Your task to perform on an android device: Do I have any events this weekend? Image 0: 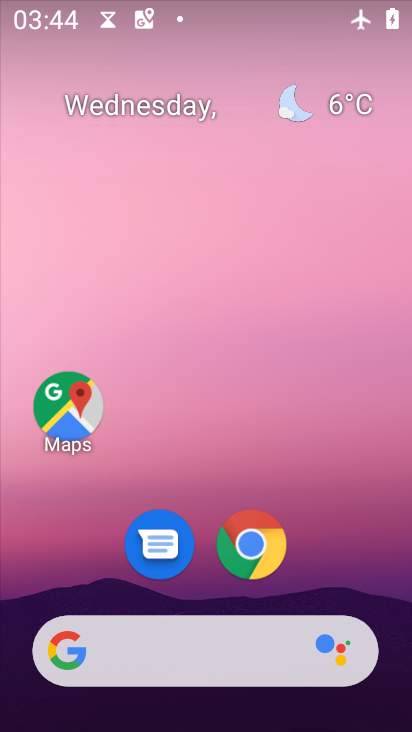
Step 0: drag from (337, 593) to (337, 103)
Your task to perform on an android device: Do I have any events this weekend? Image 1: 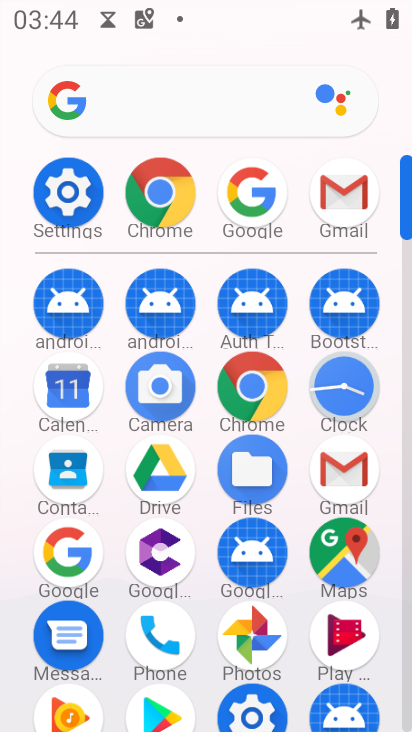
Step 1: click (51, 392)
Your task to perform on an android device: Do I have any events this weekend? Image 2: 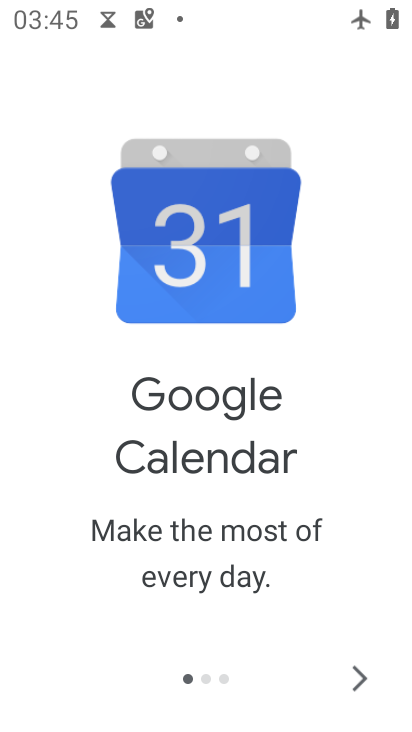
Step 2: click (363, 678)
Your task to perform on an android device: Do I have any events this weekend? Image 3: 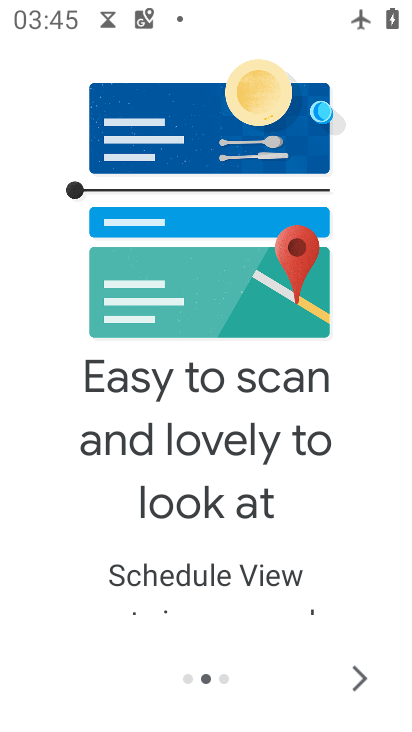
Step 3: click (363, 678)
Your task to perform on an android device: Do I have any events this weekend? Image 4: 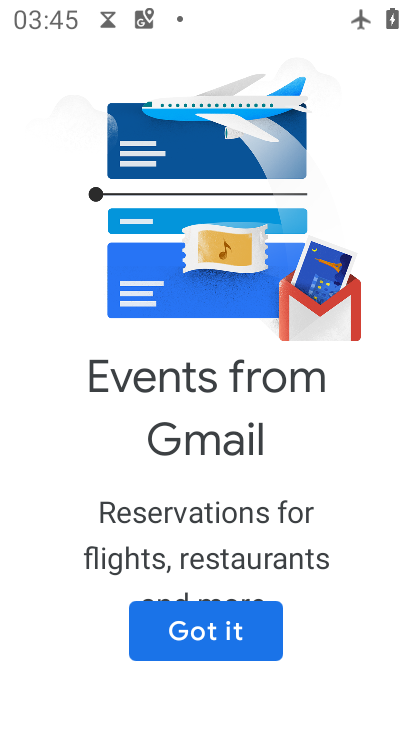
Step 4: click (209, 649)
Your task to perform on an android device: Do I have any events this weekend? Image 5: 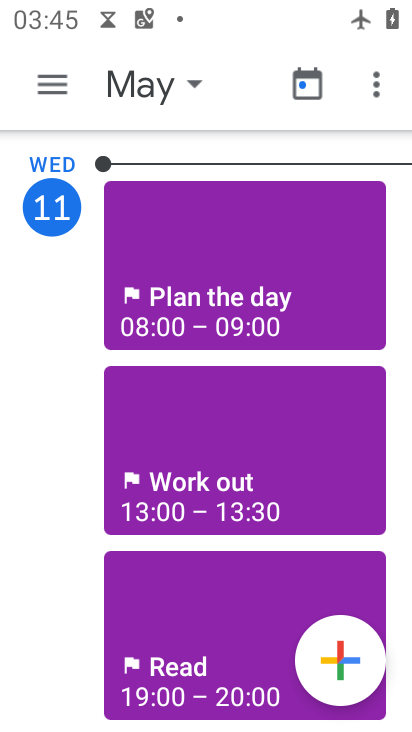
Step 5: click (136, 88)
Your task to perform on an android device: Do I have any events this weekend? Image 6: 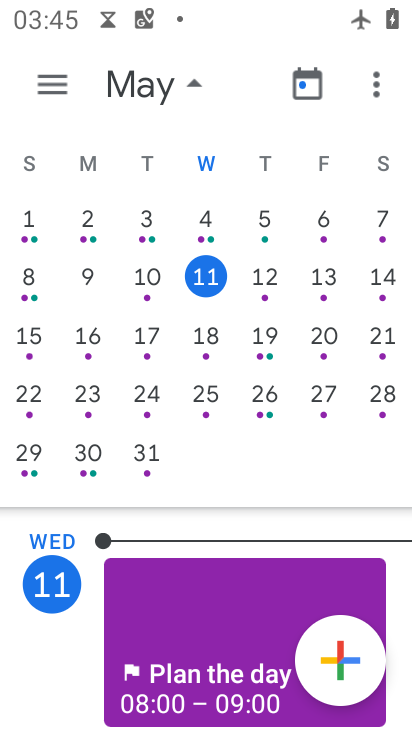
Step 6: click (370, 285)
Your task to perform on an android device: Do I have any events this weekend? Image 7: 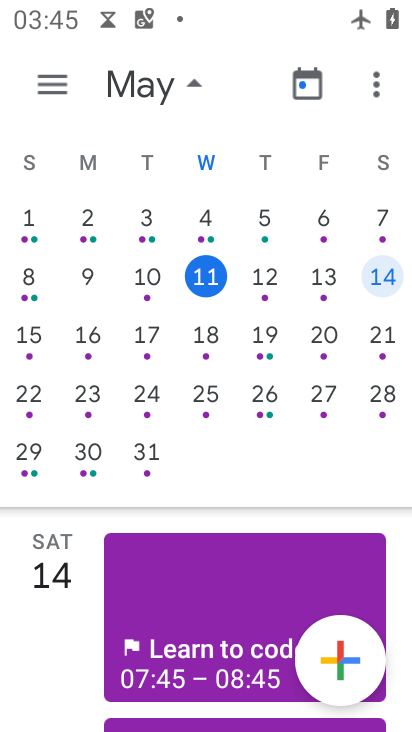
Step 7: click (23, 337)
Your task to perform on an android device: Do I have any events this weekend? Image 8: 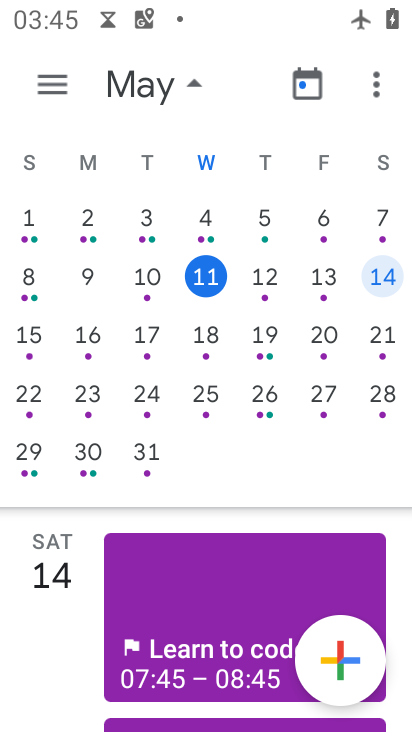
Step 8: click (34, 341)
Your task to perform on an android device: Do I have any events this weekend? Image 9: 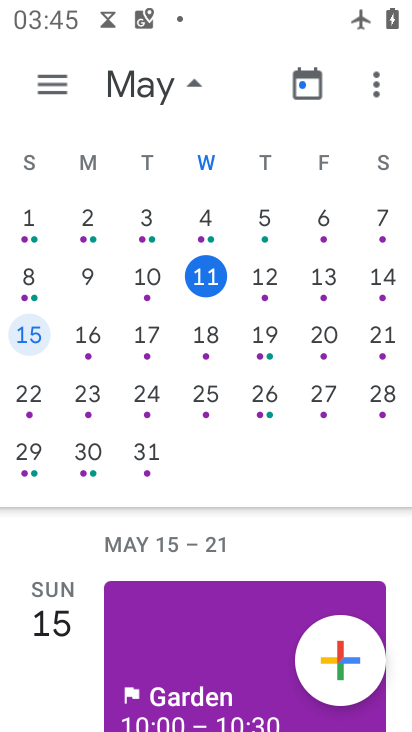
Step 9: task complete